Your task to perform on an android device: Open the map Image 0: 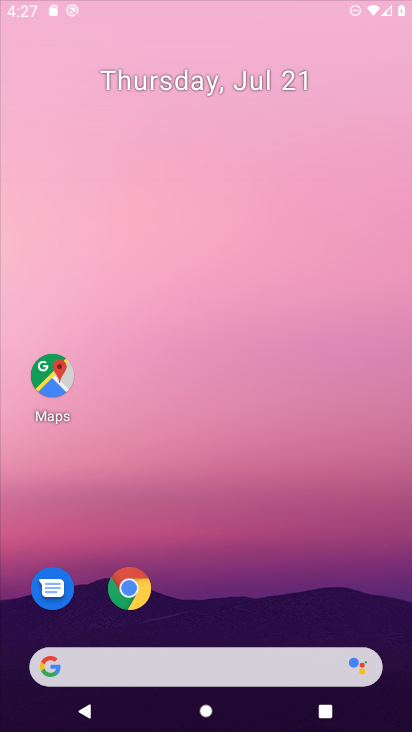
Step 0: drag from (180, 662) to (205, 196)
Your task to perform on an android device: Open the map Image 1: 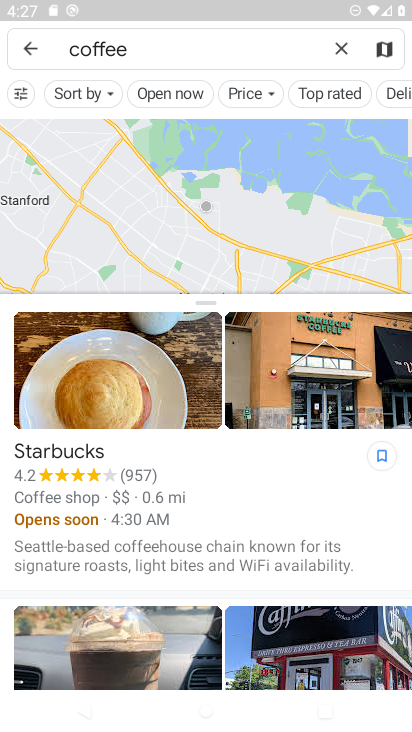
Step 1: press home button
Your task to perform on an android device: Open the map Image 2: 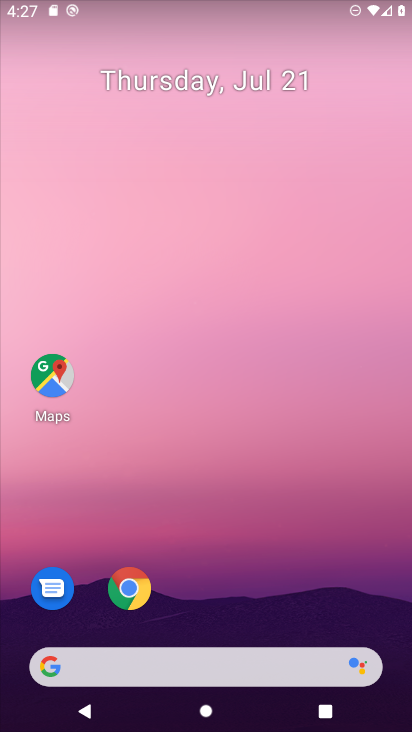
Step 2: drag from (240, 651) to (278, 160)
Your task to perform on an android device: Open the map Image 3: 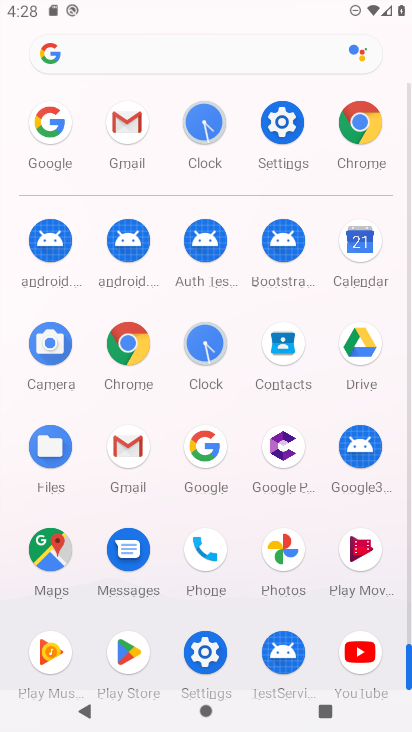
Step 3: click (59, 559)
Your task to perform on an android device: Open the map Image 4: 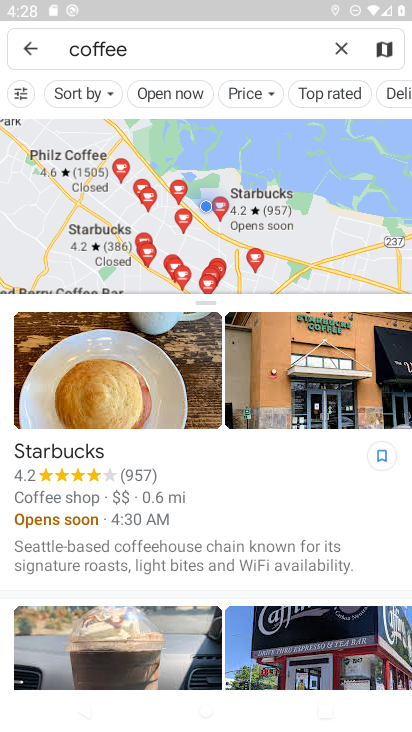
Step 4: task complete